Your task to perform on an android device: set an alarm Image 0: 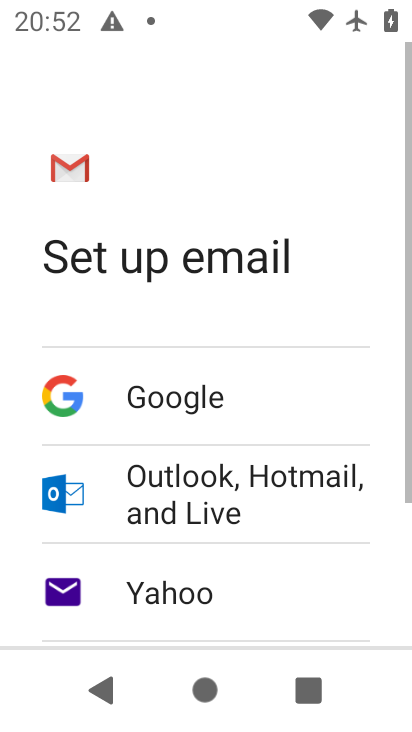
Step 0: press home button
Your task to perform on an android device: set an alarm Image 1: 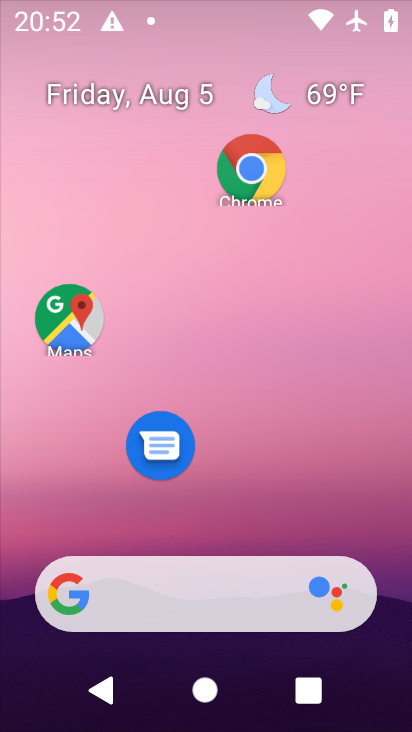
Step 1: drag from (228, 533) to (228, 105)
Your task to perform on an android device: set an alarm Image 2: 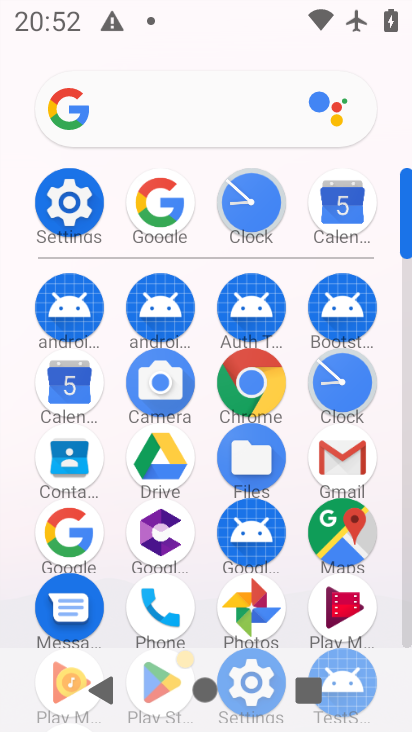
Step 2: click (259, 210)
Your task to perform on an android device: set an alarm Image 3: 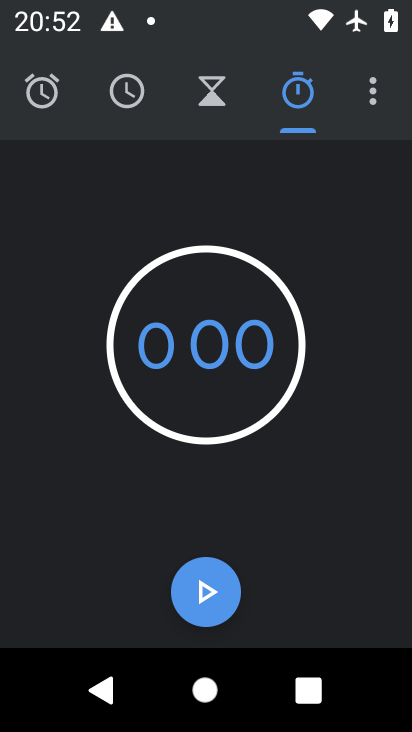
Step 3: click (52, 97)
Your task to perform on an android device: set an alarm Image 4: 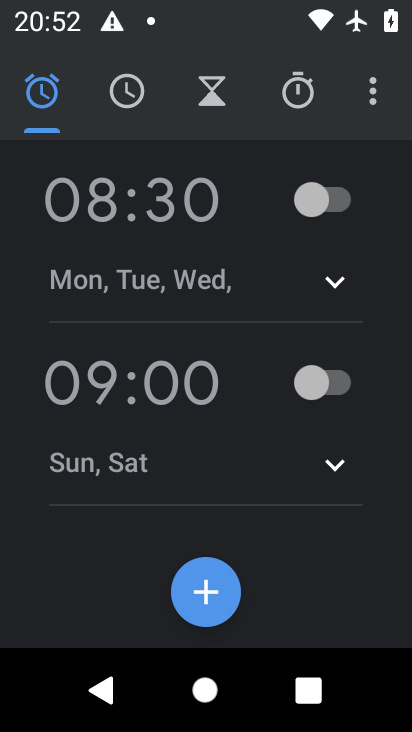
Step 4: click (332, 195)
Your task to perform on an android device: set an alarm Image 5: 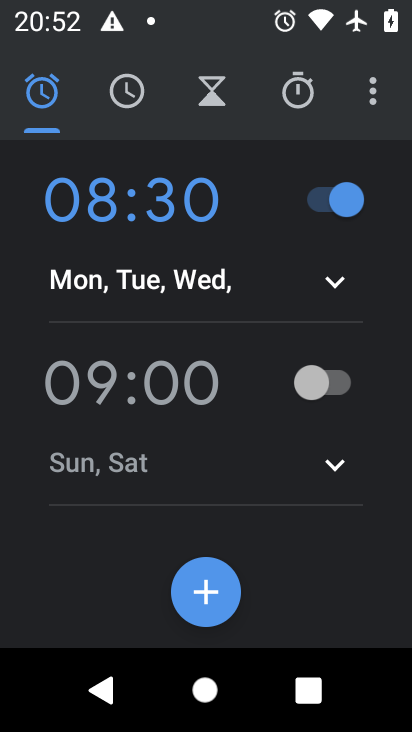
Step 5: task complete